Your task to perform on an android device: open app "Nova Launcher" (install if not already installed) and enter user name: "haggard@gmail.com" and password: "sadder" Image 0: 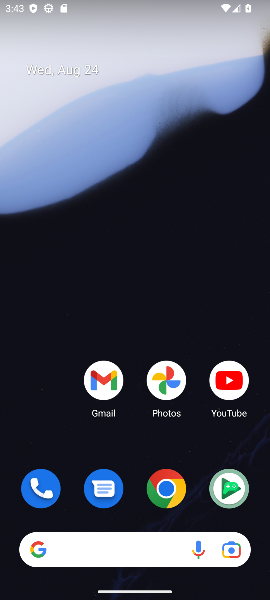
Step 0: drag from (109, 279) to (97, 6)
Your task to perform on an android device: open app "Nova Launcher" (install if not already installed) and enter user name: "haggard@gmail.com" and password: "sadder" Image 1: 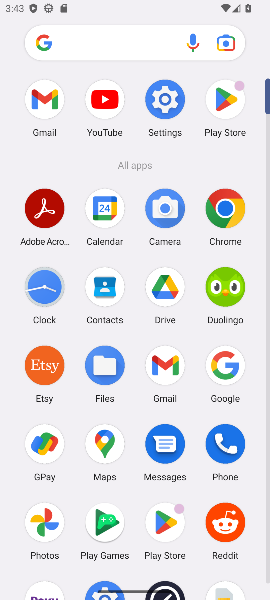
Step 1: click (219, 82)
Your task to perform on an android device: open app "Nova Launcher" (install if not already installed) and enter user name: "haggard@gmail.com" and password: "sadder" Image 2: 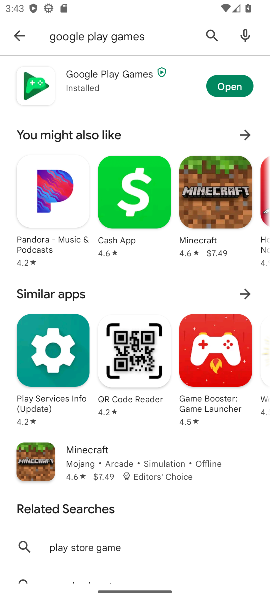
Step 2: click (211, 39)
Your task to perform on an android device: open app "Nova Launcher" (install if not already installed) and enter user name: "haggard@gmail.com" and password: "sadder" Image 3: 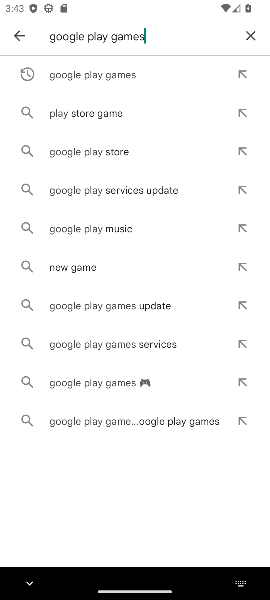
Step 3: click (242, 33)
Your task to perform on an android device: open app "Nova Launcher" (install if not already installed) and enter user name: "haggard@gmail.com" and password: "sadder" Image 4: 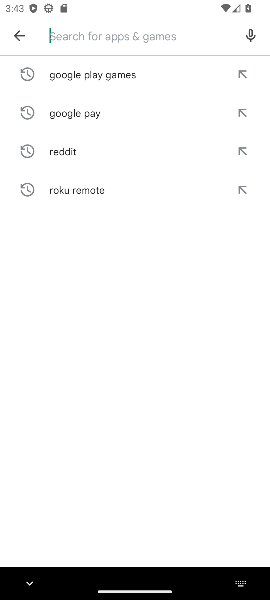
Step 4: type "nova launcher"
Your task to perform on an android device: open app "Nova Launcher" (install if not already installed) and enter user name: "haggard@gmail.com" and password: "sadder" Image 5: 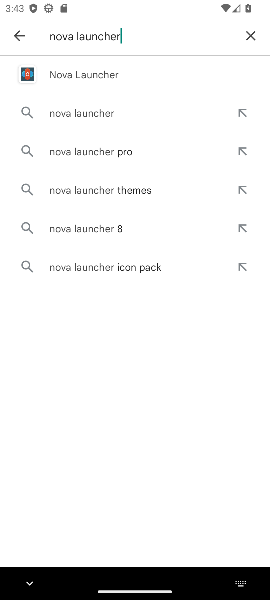
Step 5: click (131, 76)
Your task to perform on an android device: open app "Nova Launcher" (install if not already installed) and enter user name: "haggard@gmail.com" and password: "sadder" Image 6: 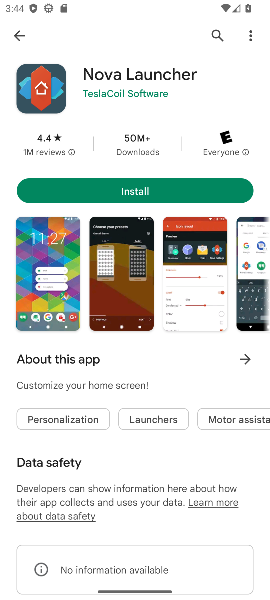
Step 6: click (120, 184)
Your task to perform on an android device: open app "Nova Launcher" (install if not already installed) and enter user name: "haggard@gmail.com" and password: "sadder" Image 7: 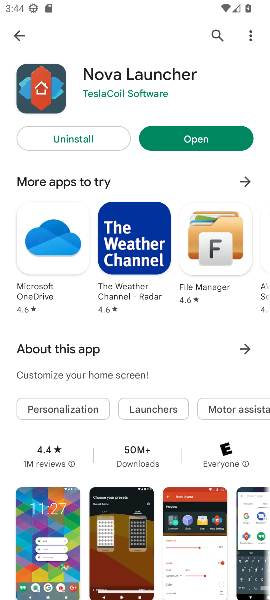
Step 7: click (218, 134)
Your task to perform on an android device: open app "Nova Launcher" (install if not already installed) and enter user name: "haggard@gmail.com" and password: "sadder" Image 8: 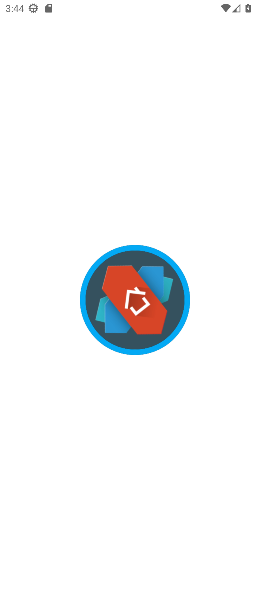
Step 8: task complete